Your task to perform on an android device: Go to settings Image 0: 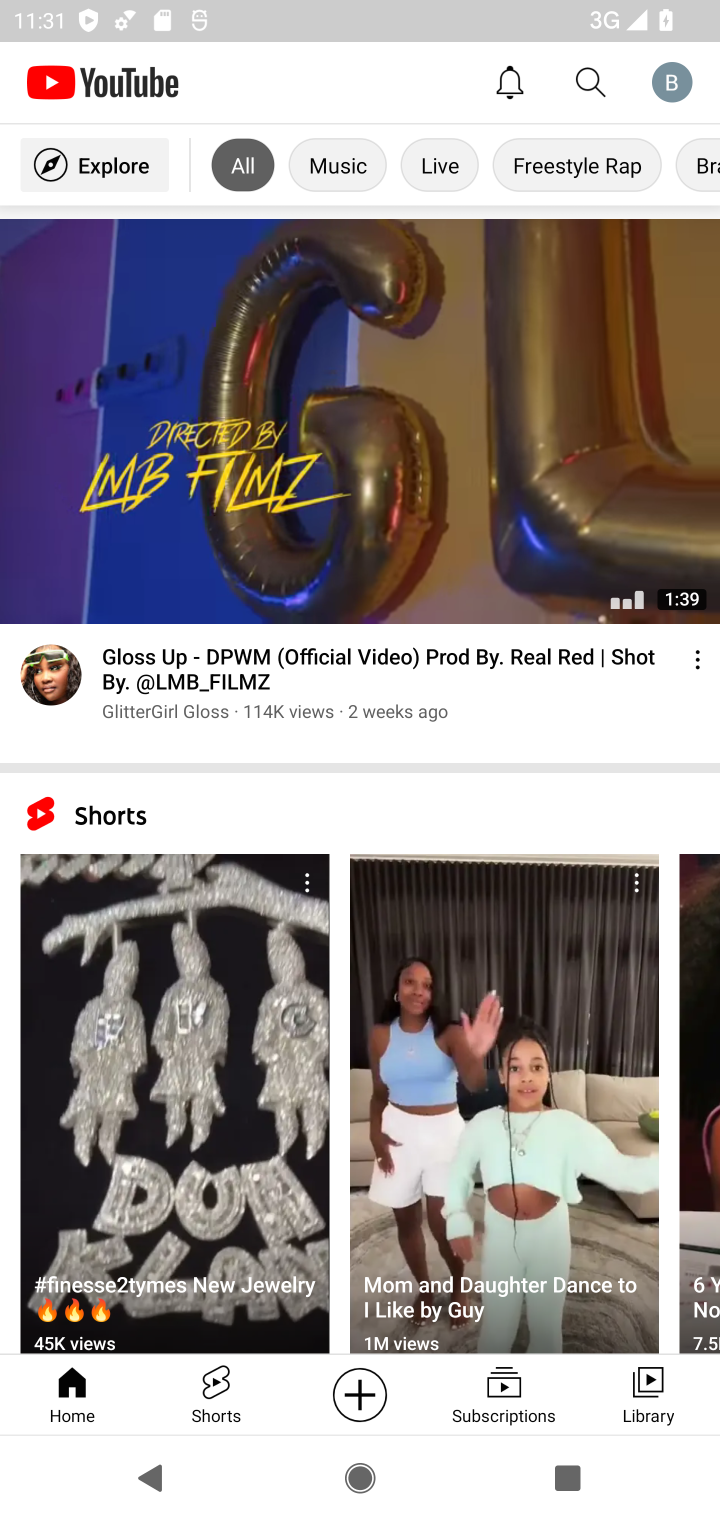
Step 0: press home button
Your task to perform on an android device: Go to settings Image 1: 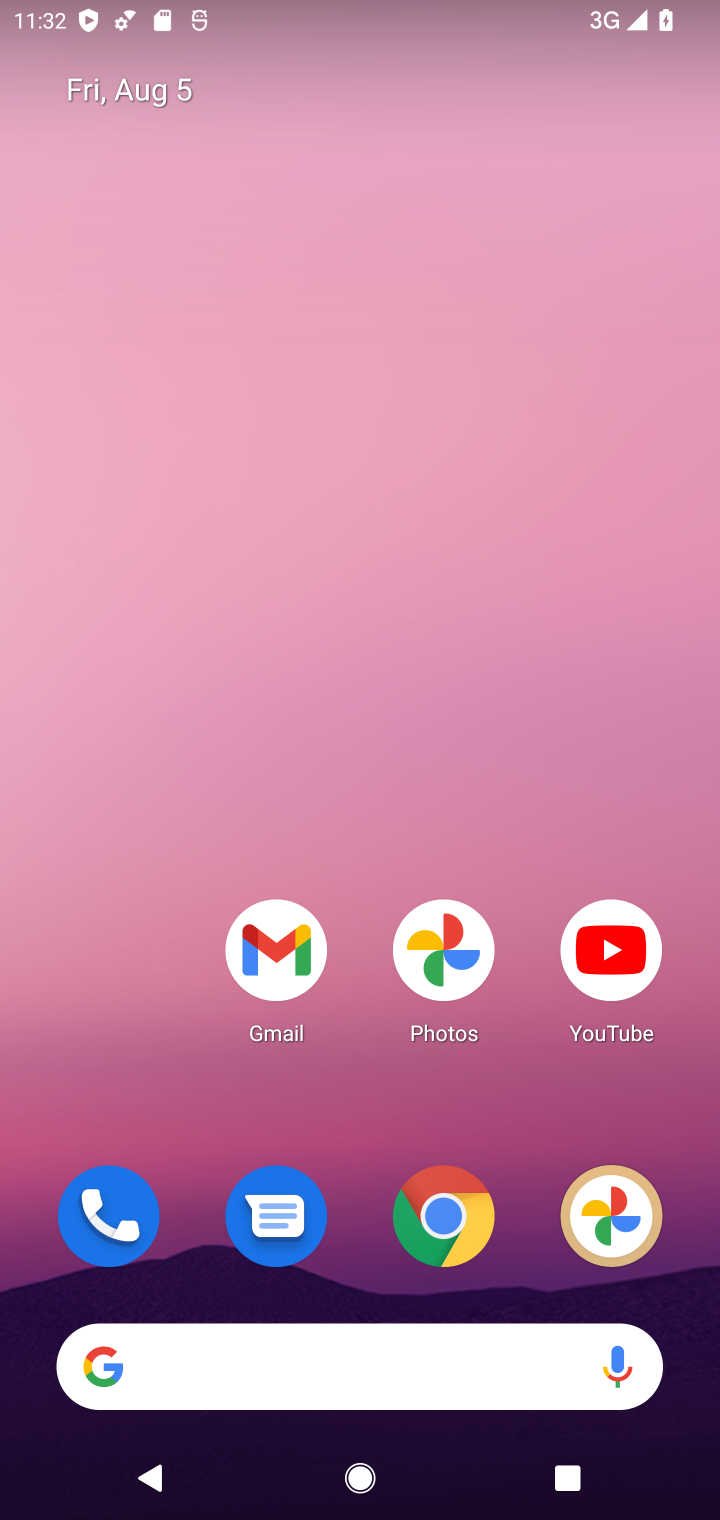
Step 1: drag from (307, 1410) to (342, 266)
Your task to perform on an android device: Go to settings Image 2: 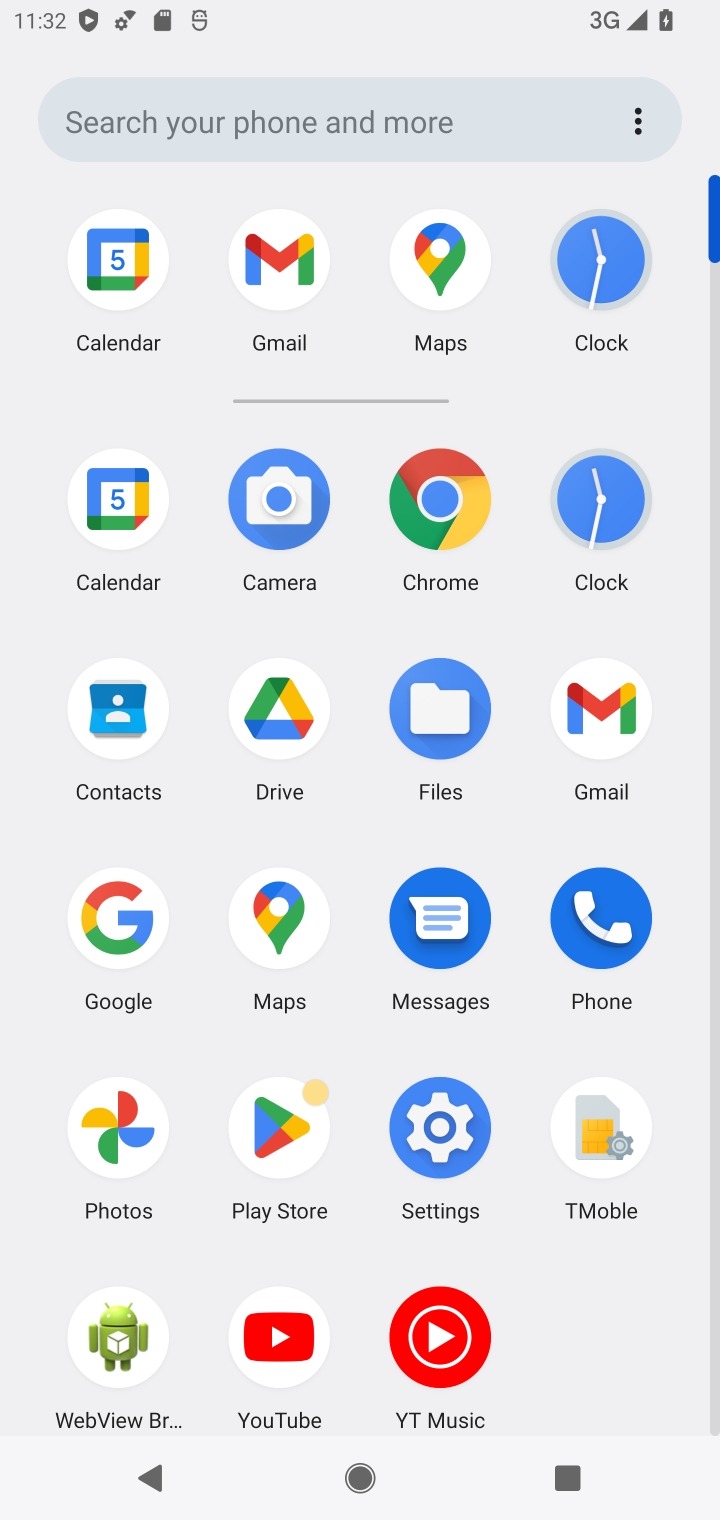
Step 2: click (453, 1110)
Your task to perform on an android device: Go to settings Image 3: 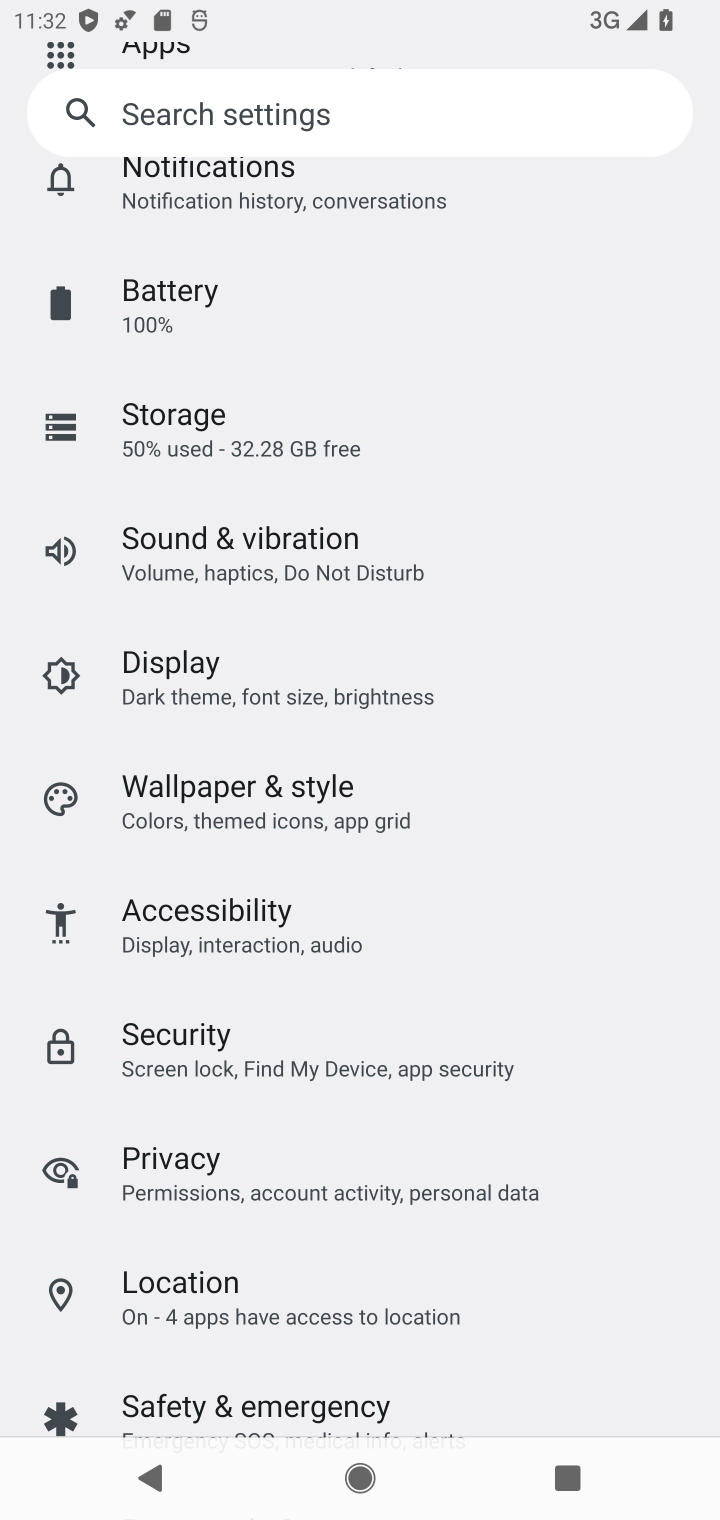
Step 3: task complete